Your task to perform on an android device: open device folders in google photos Image 0: 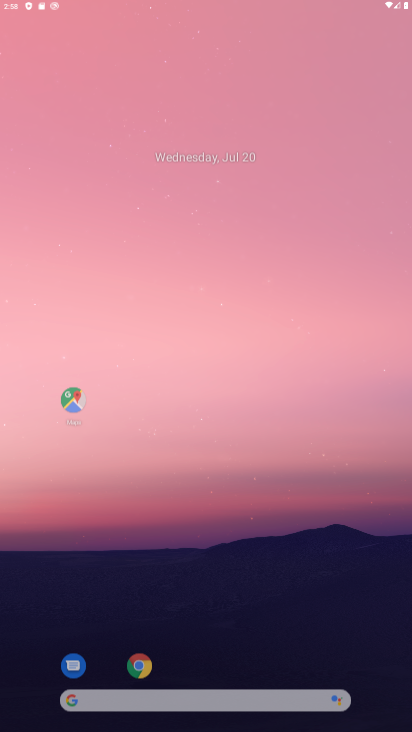
Step 0: drag from (269, 615) to (268, 226)
Your task to perform on an android device: open device folders in google photos Image 1: 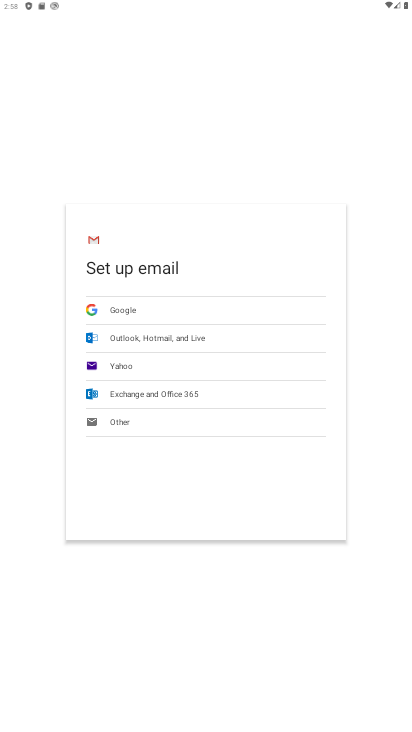
Step 1: press home button
Your task to perform on an android device: open device folders in google photos Image 2: 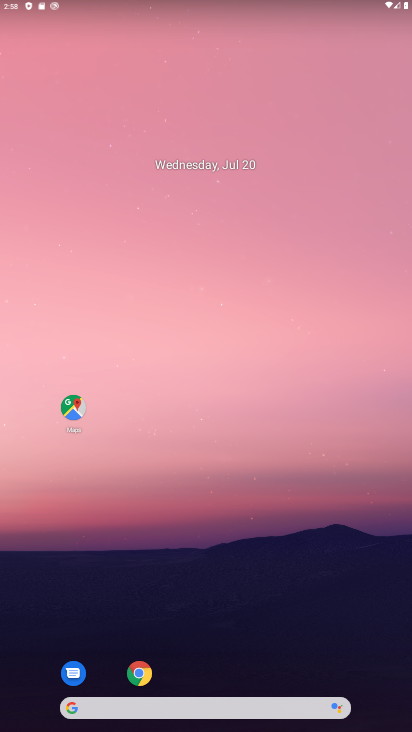
Step 2: click (251, 183)
Your task to perform on an android device: open device folders in google photos Image 3: 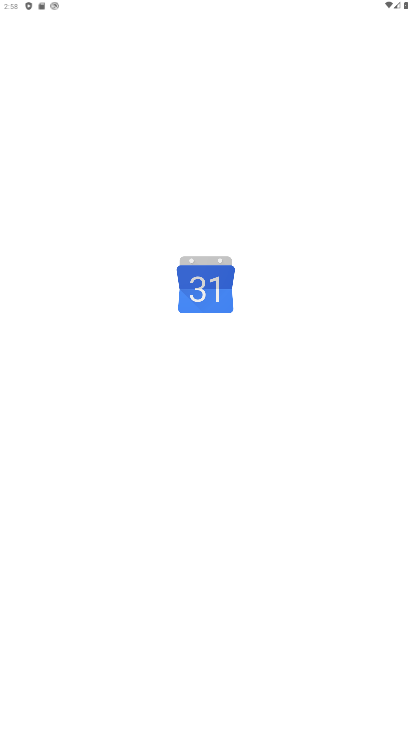
Step 3: click (287, 234)
Your task to perform on an android device: open device folders in google photos Image 4: 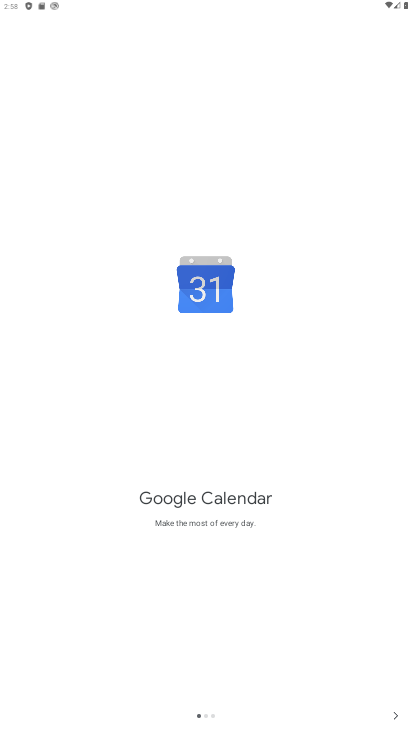
Step 4: press home button
Your task to perform on an android device: open device folders in google photos Image 5: 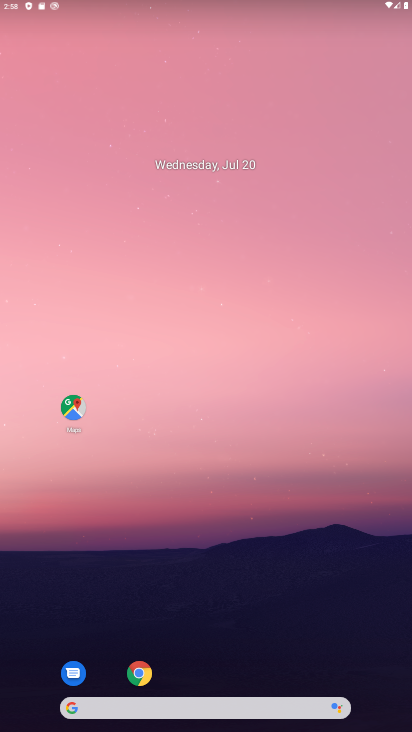
Step 5: drag from (181, 664) to (116, 241)
Your task to perform on an android device: open device folders in google photos Image 6: 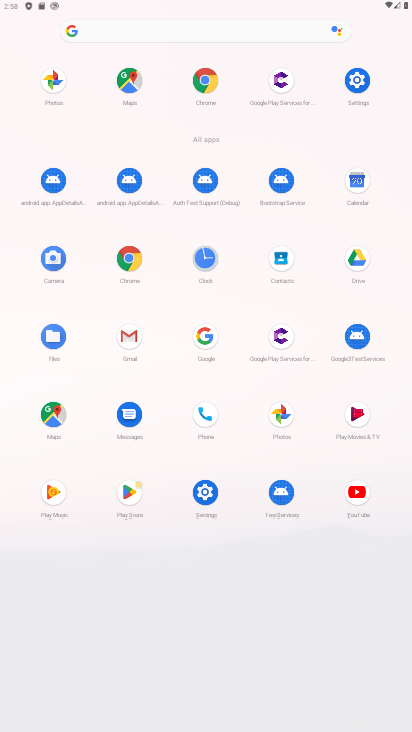
Step 6: click (273, 410)
Your task to perform on an android device: open device folders in google photos Image 7: 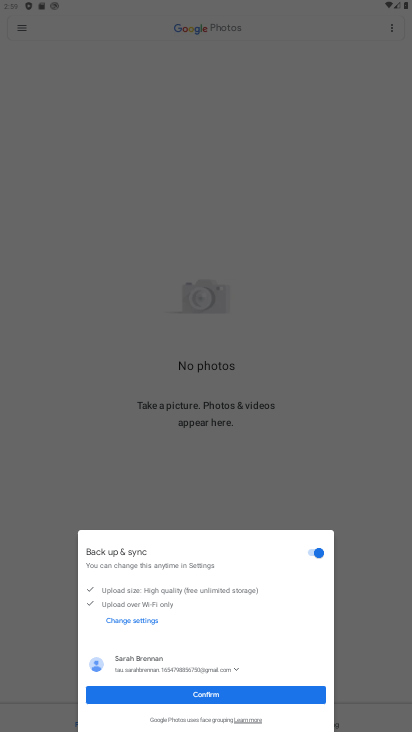
Step 7: click (234, 699)
Your task to perform on an android device: open device folders in google photos Image 8: 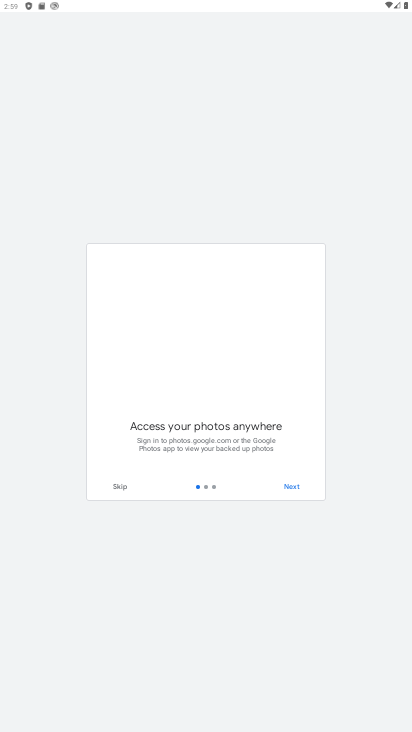
Step 8: click (274, 487)
Your task to perform on an android device: open device folders in google photos Image 9: 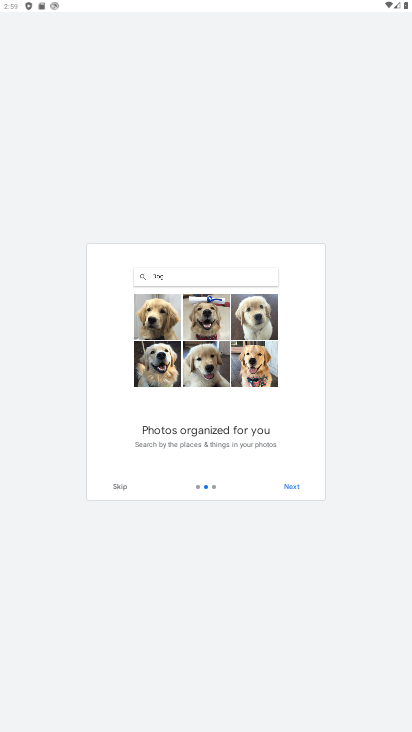
Step 9: click (304, 484)
Your task to perform on an android device: open device folders in google photos Image 10: 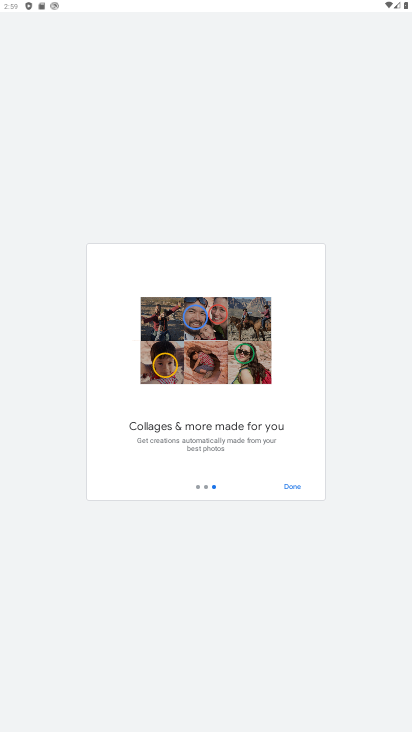
Step 10: click (304, 484)
Your task to perform on an android device: open device folders in google photos Image 11: 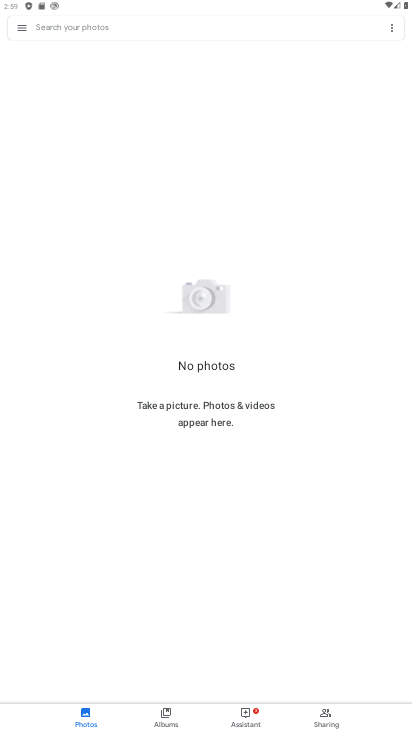
Step 11: click (168, 717)
Your task to perform on an android device: open device folders in google photos Image 12: 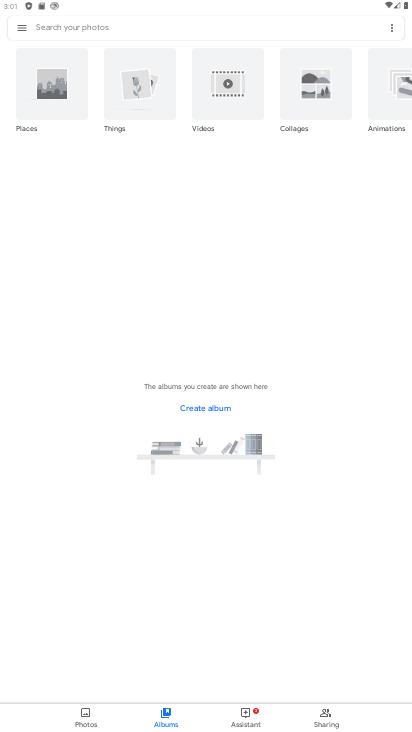
Step 12: task complete